Your task to perform on an android device: turn off airplane mode Image 0: 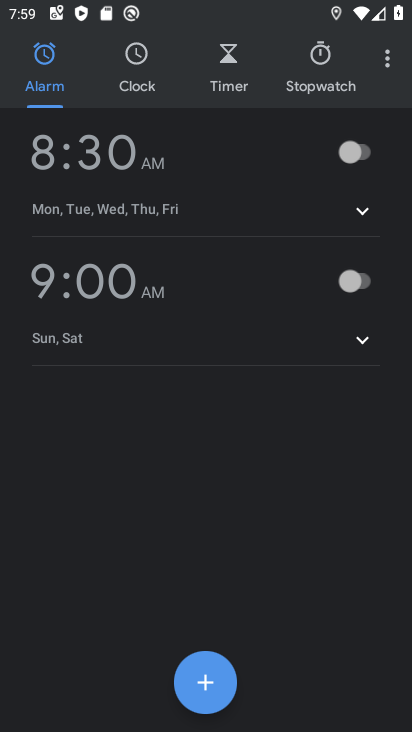
Step 0: press home button
Your task to perform on an android device: turn off airplane mode Image 1: 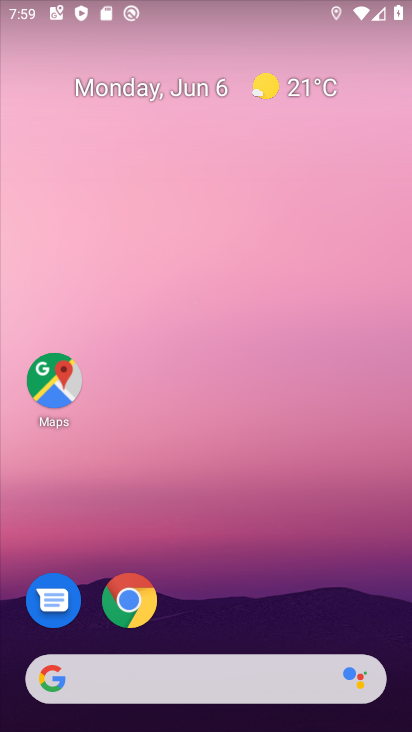
Step 1: drag from (366, 608) to (305, 190)
Your task to perform on an android device: turn off airplane mode Image 2: 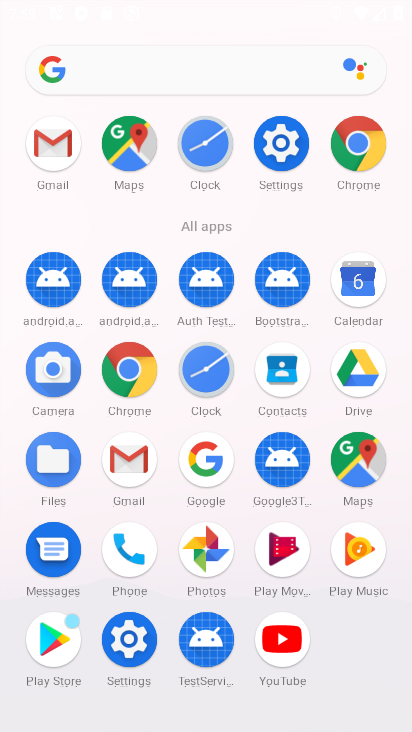
Step 2: click (125, 637)
Your task to perform on an android device: turn off airplane mode Image 3: 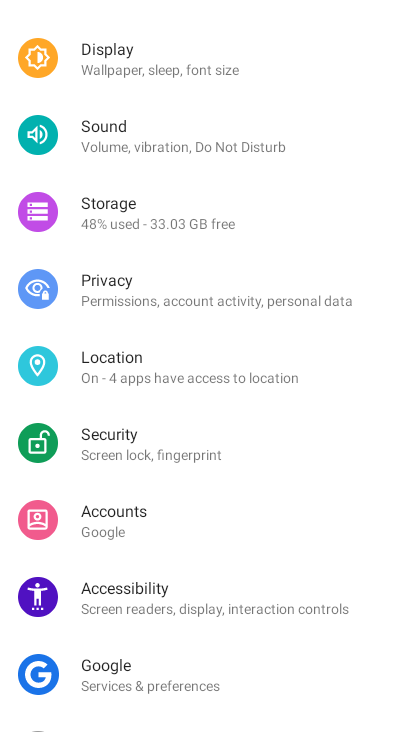
Step 3: drag from (307, 128) to (304, 491)
Your task to perform on an android device: turn off airplane mode Image 4: 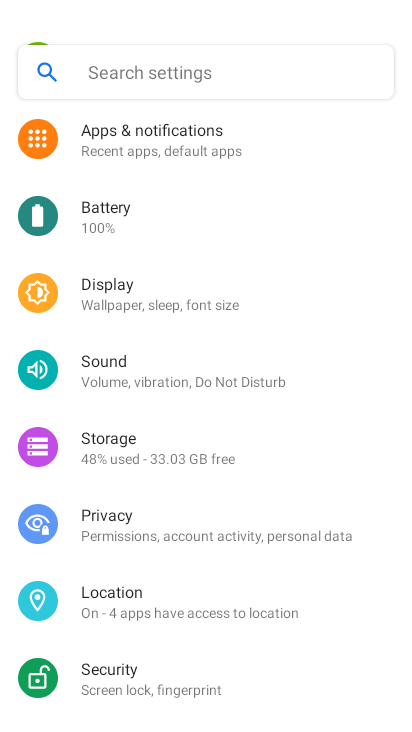
Step 4: drag from (142, 117) to (167, 485)
Your task to perform on an android device: turn off airplane mode Image 5: 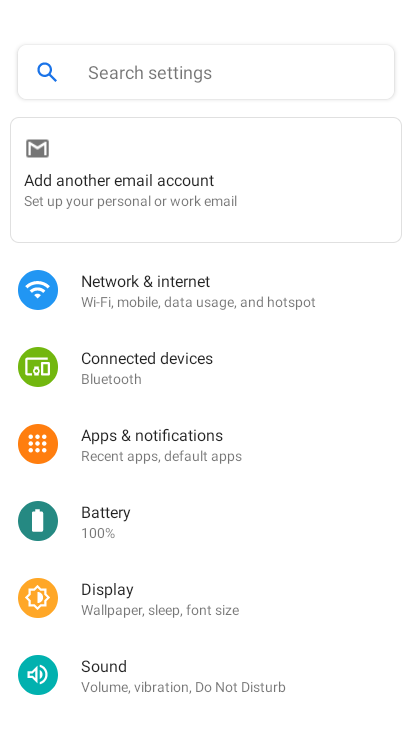
Step 5: click (162, 276)
Your task to perform on an android device: turn off airplane mode Image 6: 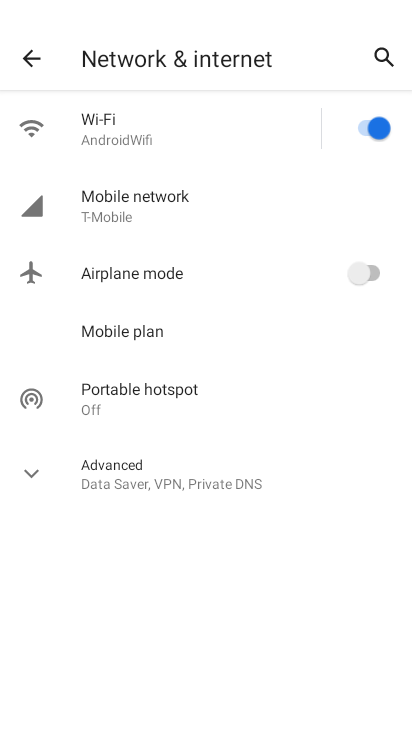
Step 6: task complete